Your task to perform on an android device: Open display settings Image 0: 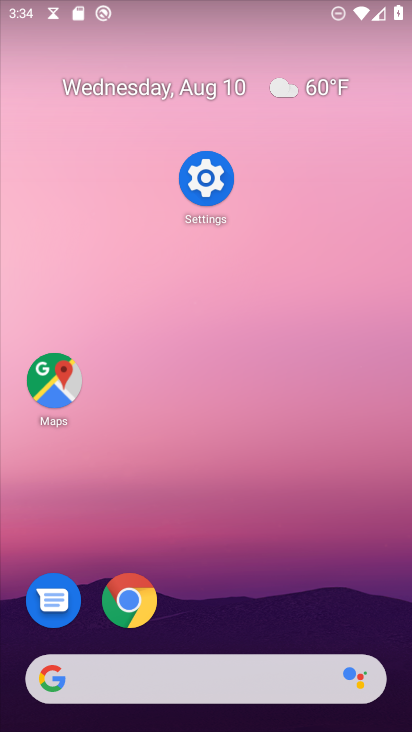
Step 0: press home button
Your task to perform on an android device: Open display settings Image 1: 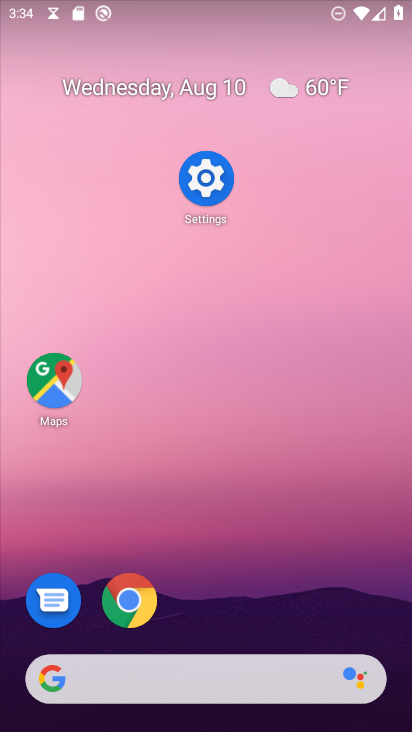
Step 1: click (196, 163)
Your task to perform on an android device: Open display settings Image 2: 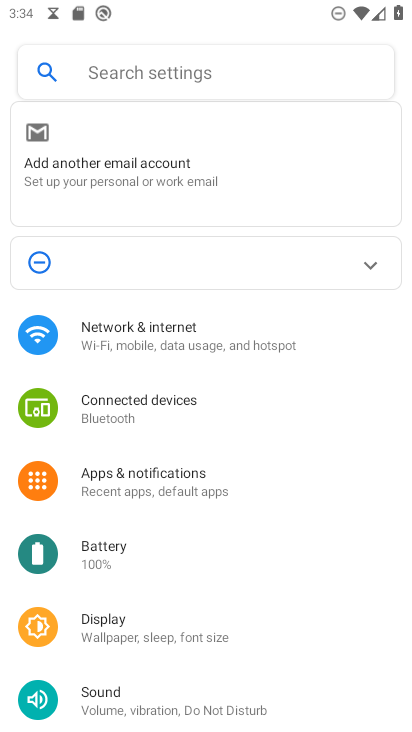
Step 2: click (114, 634)
Your task to perform on an android device: Open display settings Image 3: 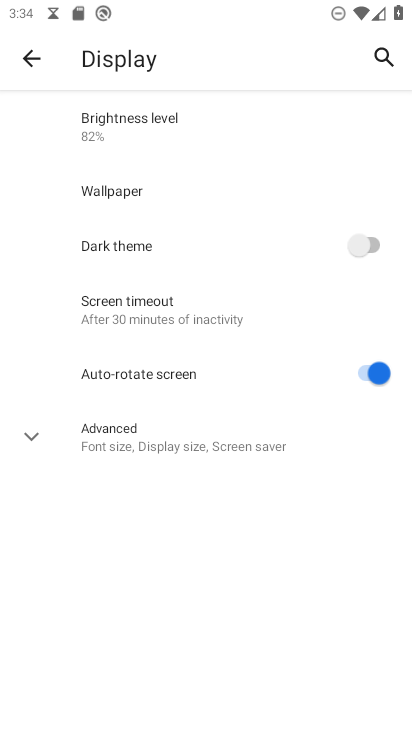
Step 3: task complete